Your task to perform on an android device: turn pop-ups on in chrome Image 0: 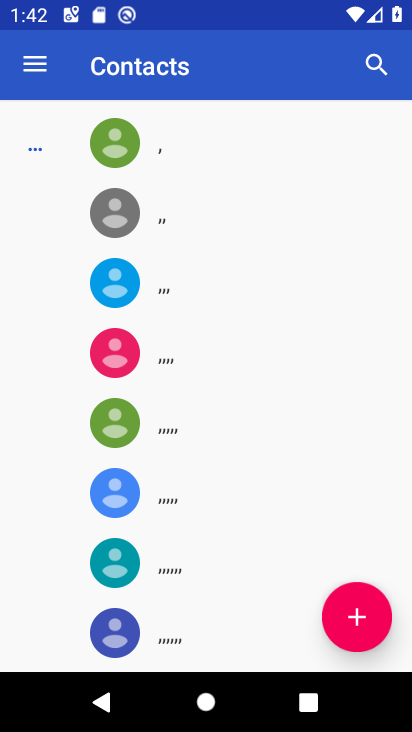
Step 0: drag from (226, 576) to (239, 338)
Your task to perform on an android device: turn pop-ups on in chrome Image 1: 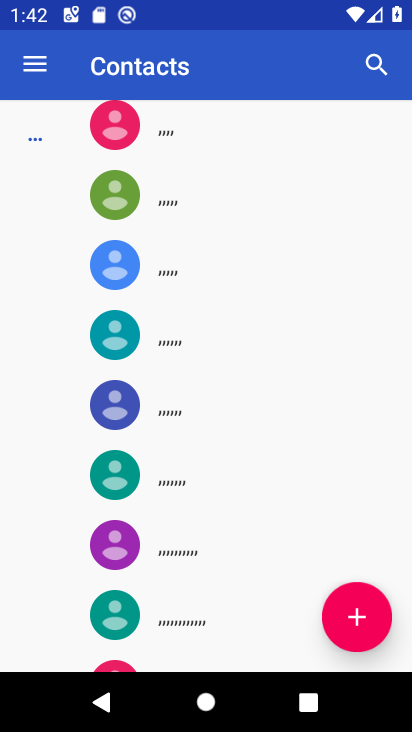
Step 1: press home button
Your task to perform on an android device: turn pop-ups on in chrome Image 2: 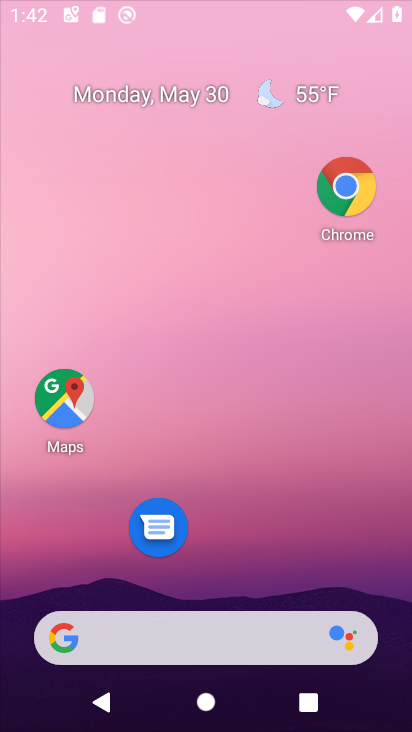
Step 2: drag from (238, 600) to (306, 56)
Your task to perform on an android device: turn pop-ups on in chrome Image 3: 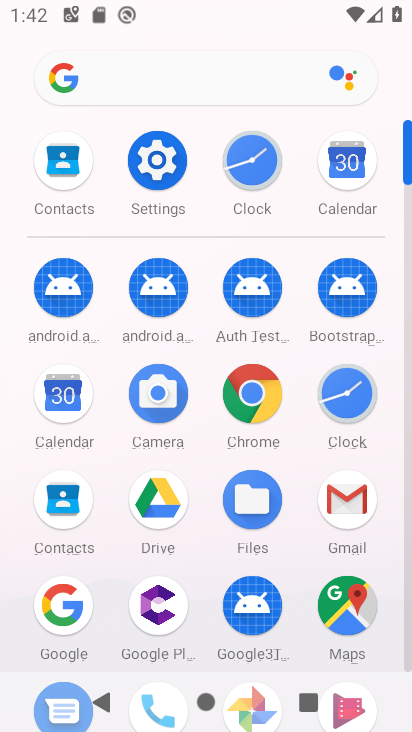
Step 3: click (250, 383)
Your task to perform on an android device: turn pop-ups on in chrome Image 4: 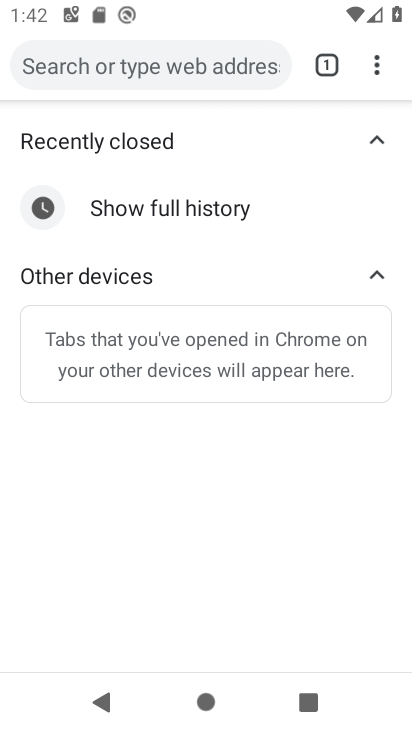
Step 4: drag from (373, 55) to (196, 544)
Your task to perform on an android device: turn pop-ups on in chrome Image 5: 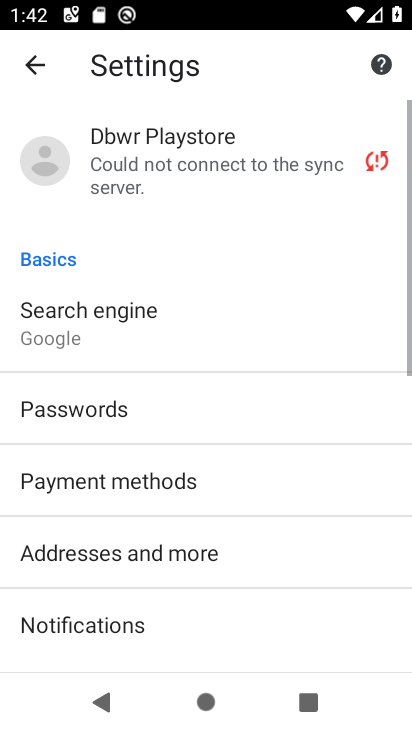
Step 5: drag from (134, 589) to (262, 0)
Your task to perform on an android device: turn pop-ups on in chrome Image 6: 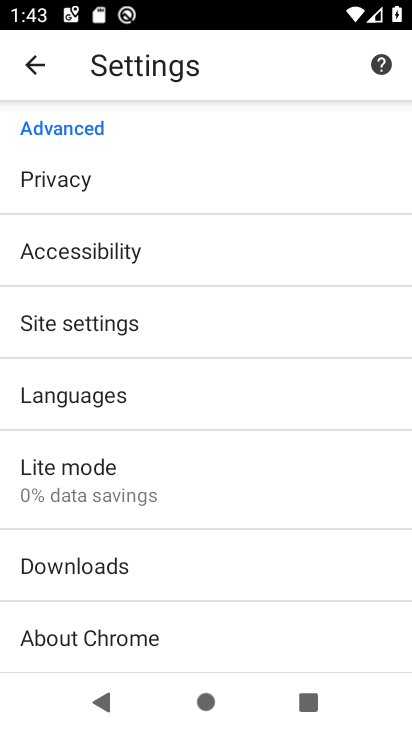
Step 6: click (130, 323)
Your task to perform on an android device: turn pop-ups on in chrome Image 7: 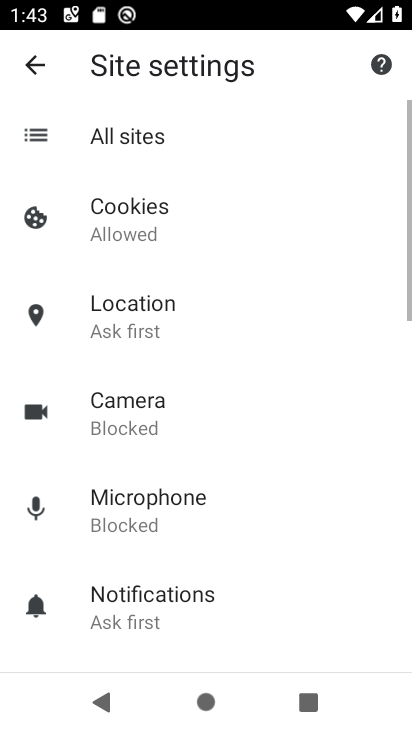
Step 7: drag from (215, 525) to (300, 94)
Your task to perform on an android device: turn pop-ups on in chrome Image 8: 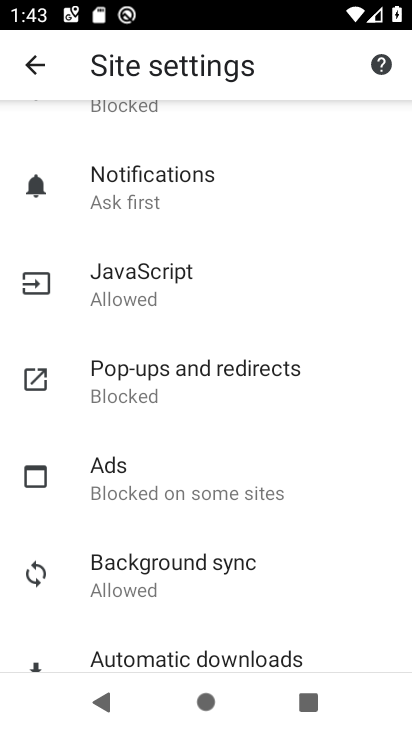
Step 8: click (172, 372)
Your task to perform on an android device: turn pop-ups on in chrome Image 9: 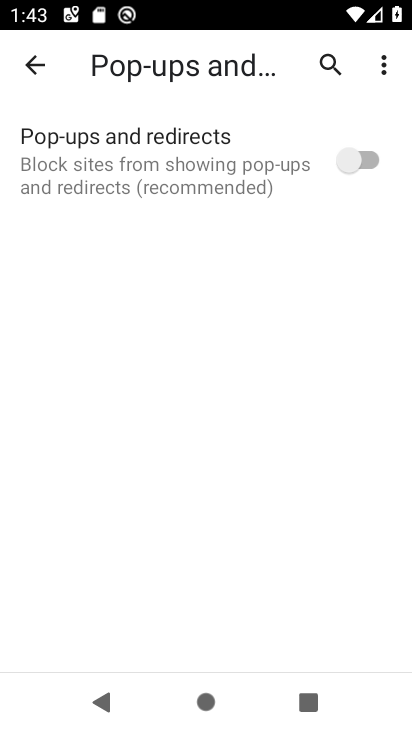
Step 9: click (221, 171)
Your task to perform on an android device: turn pop-ups on in chrome Image 10: 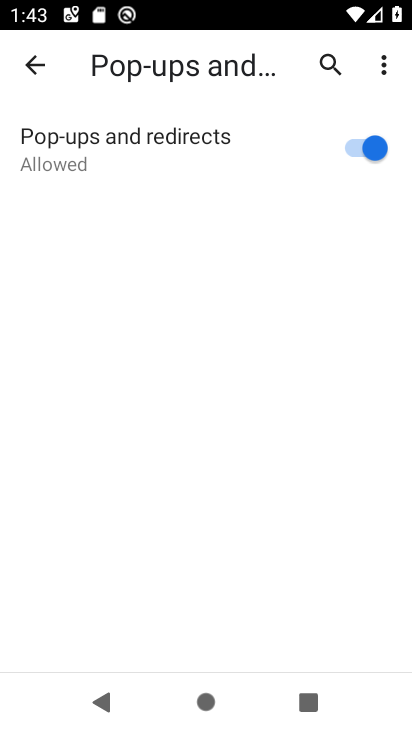
Step 10: task complete